Your task to perform on an android device: search for accent chairs on article.com Image 0: 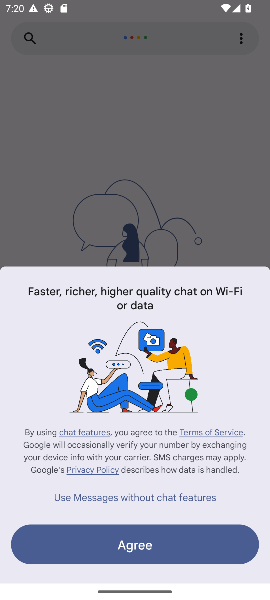
Step 0: press home button
Your task to perform on an android device: search for accent chairs on article.com Image 1: 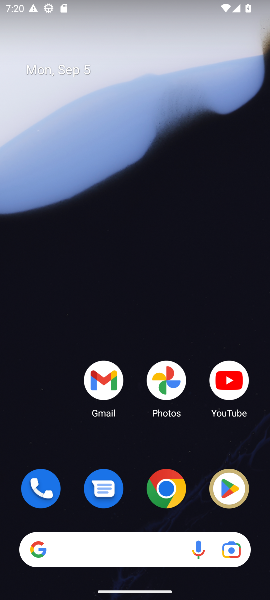
Step 1: click (173, 496)
Your task to perform on an android device: search for accent chairs on article.com Image 2: 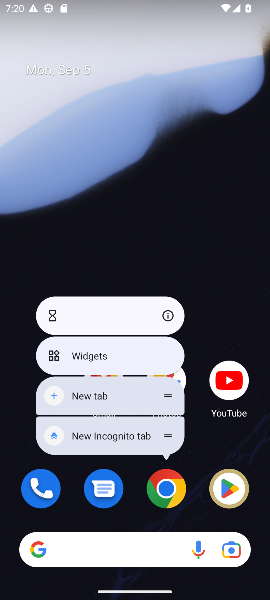
Step 2: click (170, 494)
Your task to perform on an android device: search for accent chairs on article.com Image 3: 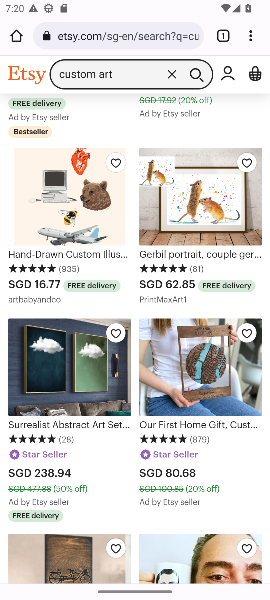
Step 3: click (142, 38)
Your task to perform on an android device: search for accent chairs on article.com Image 4: 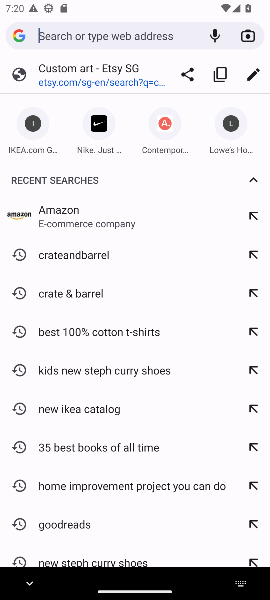
Step 4: type "article.com"
Your task to perform on an android device: search for accent chairs on article.com Image 5: 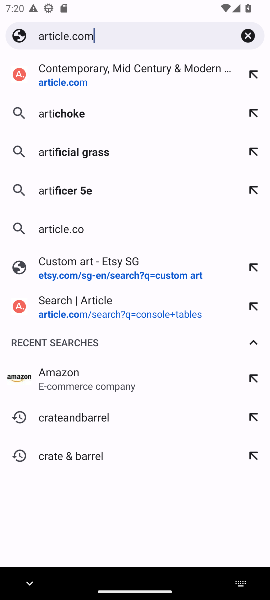
Step 5: type ""
Your task to perform on an android device: search for accent chairs on article.com Image 6: 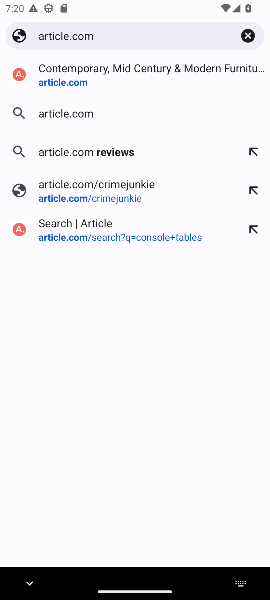
Step 6: press enter
Your task to perform on an android device: search for accent chairs on article.com Image 7: 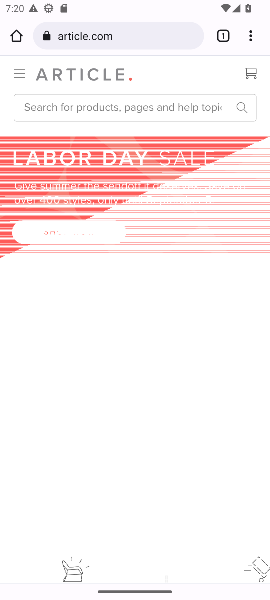
Step 7: click (166, 106)
Your task to perform on an android device: search for accent chairs on article.com Image 8: 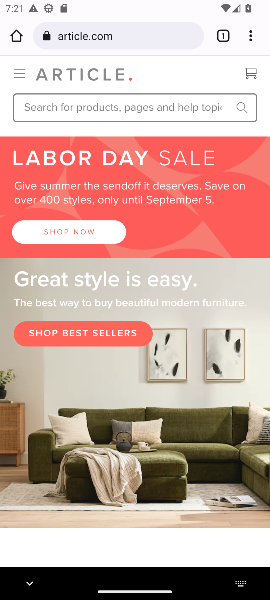
Step 8: type "accent chairs"
Your task to perform on an android device: search for accent chairs on article.com Image 9: 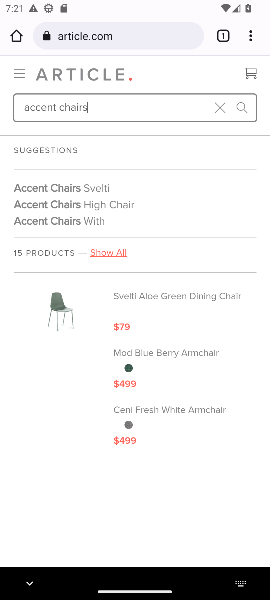
Step 9: press enter
Your task to perform on an android device: search for accent chairs on article.com Image 10: 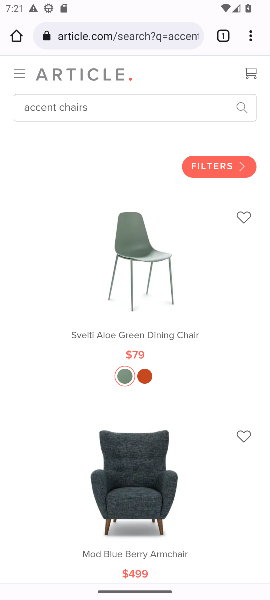
Step 10: task complete